Your task to perform on an android device: toggle translation in the chrome app Image 0: 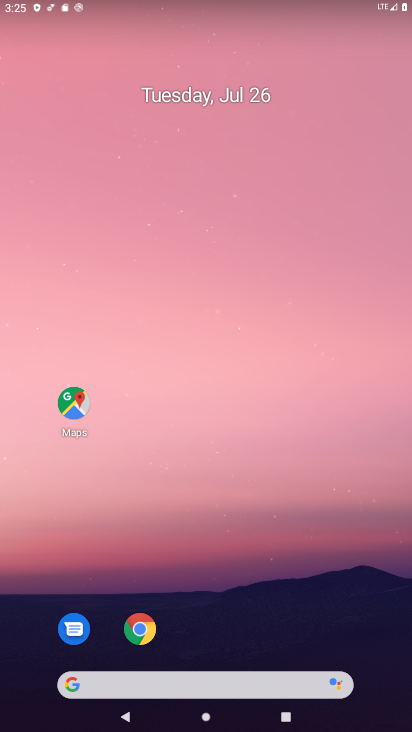
Step 0: drag from (232, 688) to (228, 368)
Your task to perform on an android device: toggle translation in the chrome app Image 1: 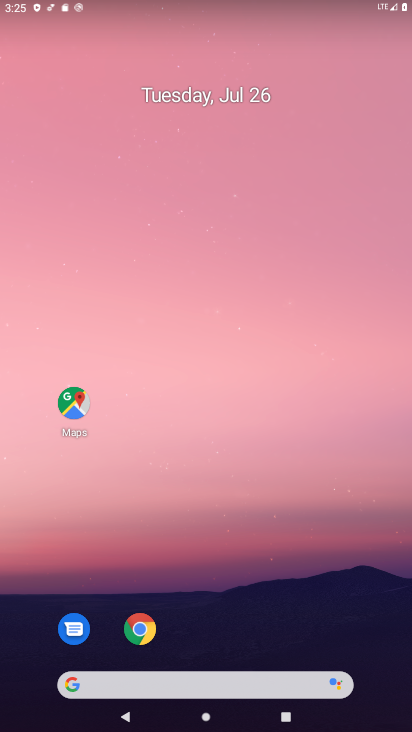
Step 1: click (138, 622)
Your task to perform on an android device: toggle translation in the chrome app Image 2: 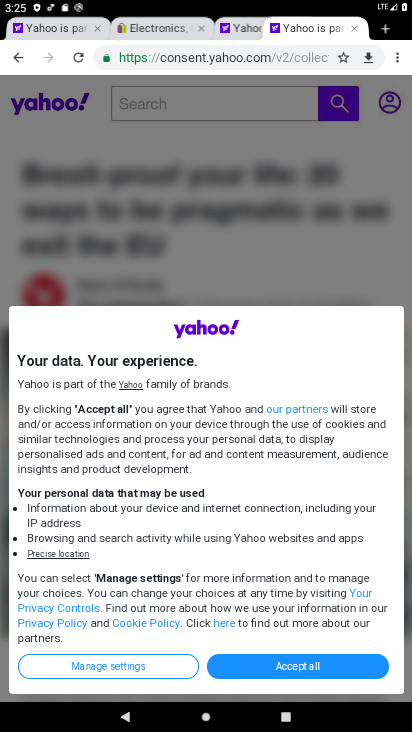
Step 2: click (400, 62)
Your task to perform on an android device: toggle translation in the chrome app Image 3: 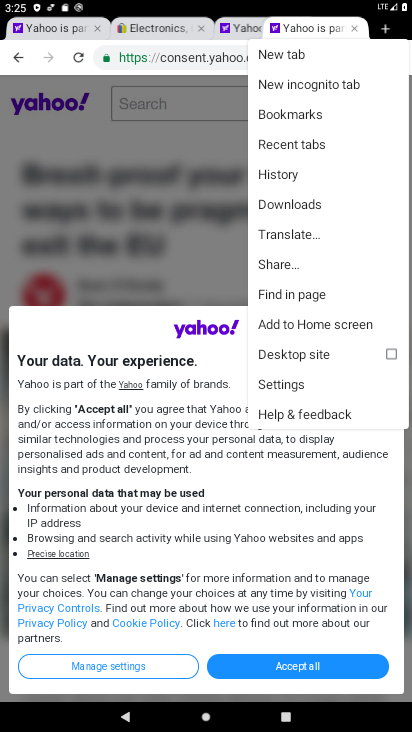
Step 3: click (273, 384)
Your task to perform on an android device: toggle translation in the chrome app Image 4: 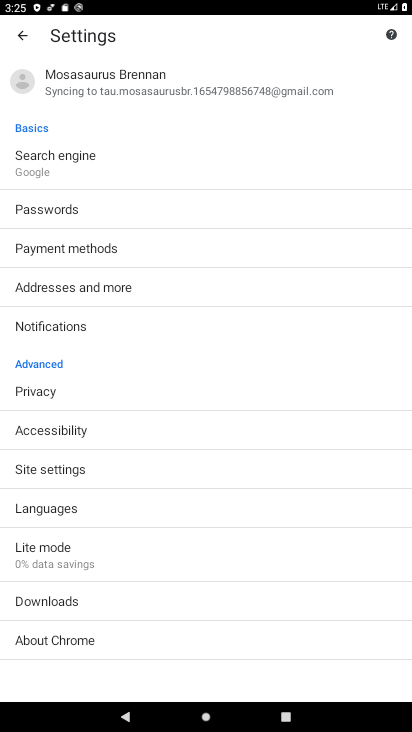
Step 4: click (50, 508)
Your task to perform on an android device: toggle translation in the chrome app Image 5: 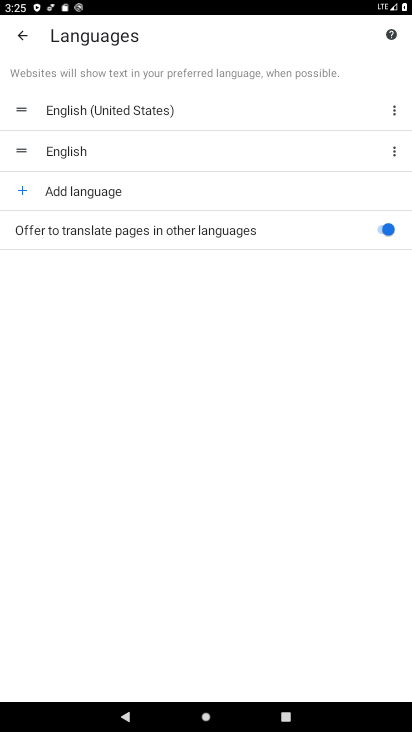
Step 5: click (386, 230)
Your task to perform on an android device: toggle translation in the chrome app Image 6: 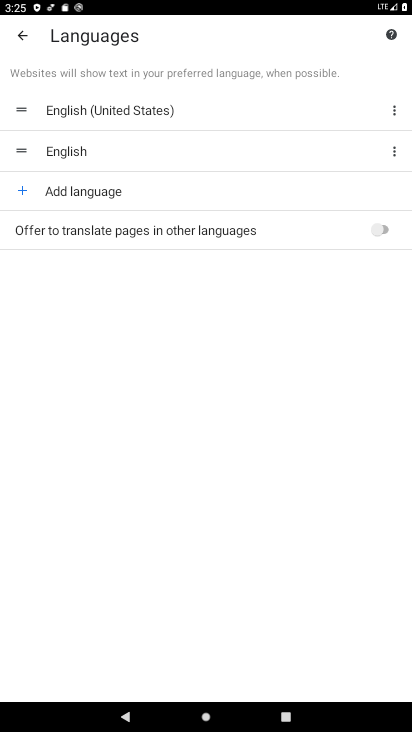
Step 6: task complete